Your task to perform on an android device: What's the weather going to be tomorrow? Image 0: 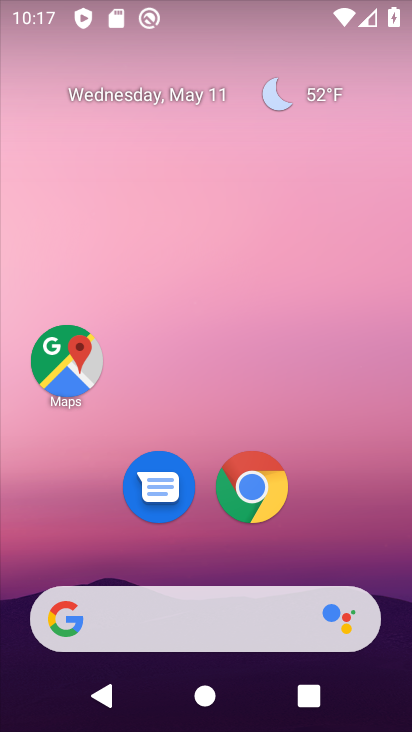
Step 0: click (304, 0)
Your task to perform on an android device: What's the weather going to be tomorrow? Image 1: 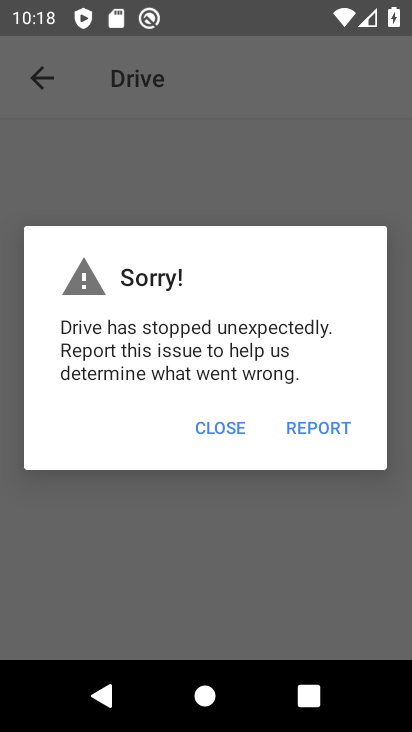
Step 1: press back button
Your task to perform on an android device: What's the weather going to be tomorrow? Image 2: 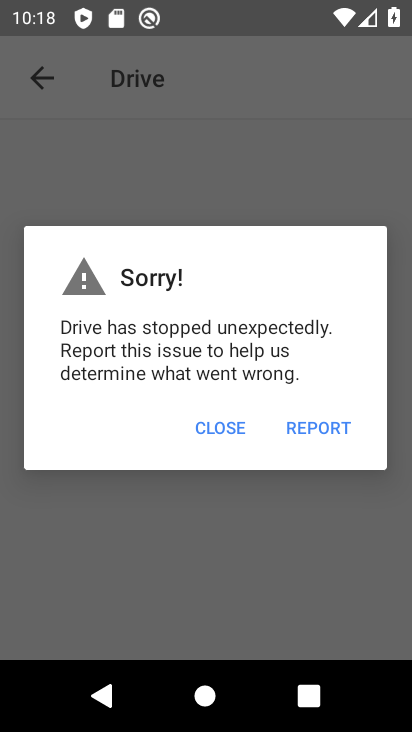
Step 2: press back button
Your task to perform on an android device: What's the weather going to be tomorrow? Image 3: 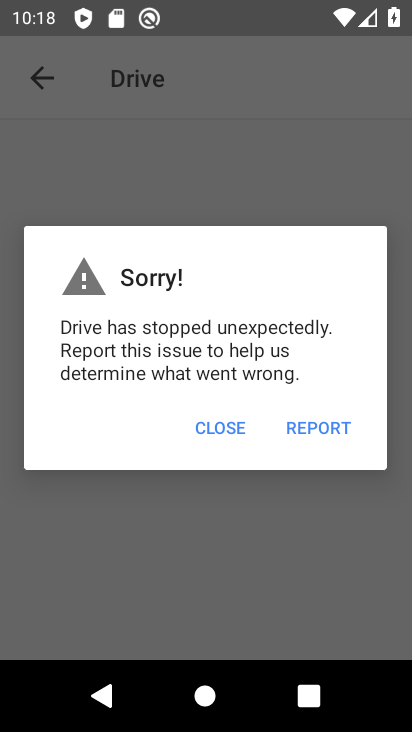
Step 3: press back button
Your task to perform on an android device: What's the weather going to be tomorrow? Image 4: 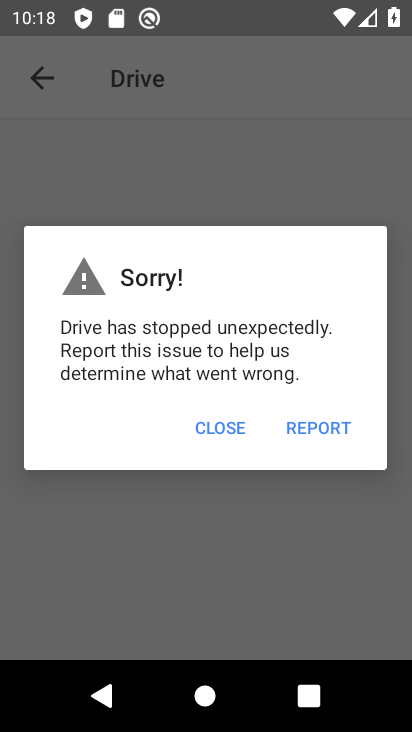
Step 4: press home button
Your task to perform on an android device: What's the weather going to be tomorrow? Image 5: 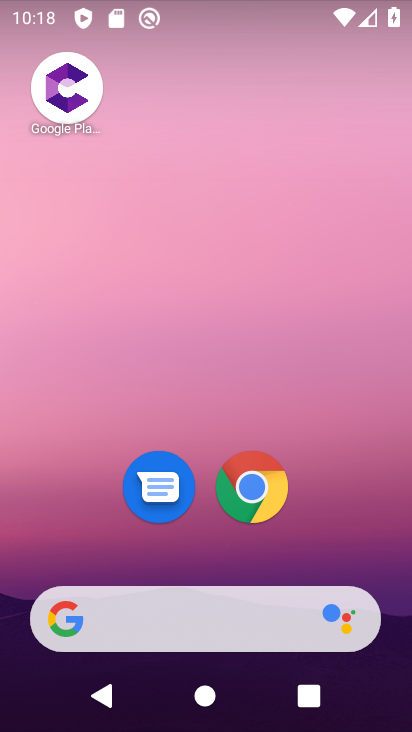
Step 5: drag from (341, 430) to (341, 4)
Your task to perform on an android device: What's the weather going to be tomorrow? Image 6: 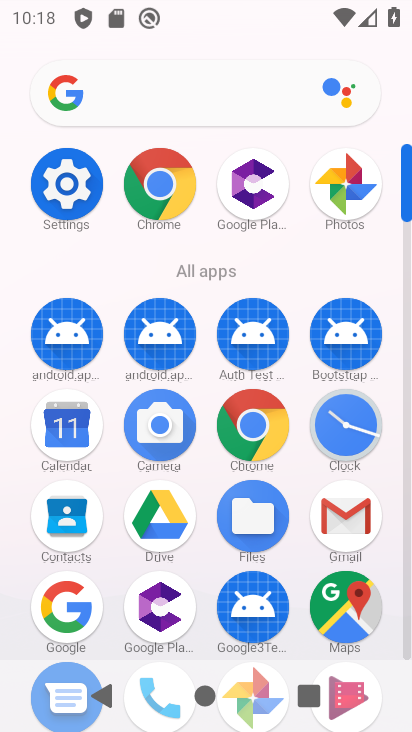
Step 6: drag from (0, 561) to (6, 297)
Your task to perform on an android device: What's the weather going to be tomorrow? Image 7: 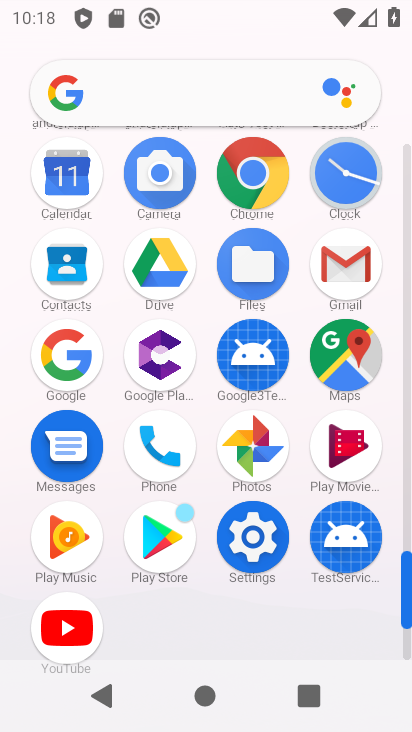
Step 7: click (250, 167)
Your task to perform on an android device: What's the weather going to be tomorrow? Image 8: 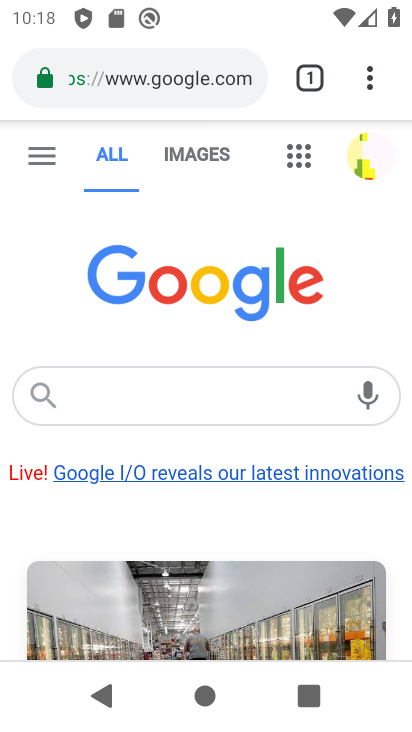
Step 8: click (133, 55)
Your task to perform on an android device: What's the weather going to be tomorrow? Image 9: 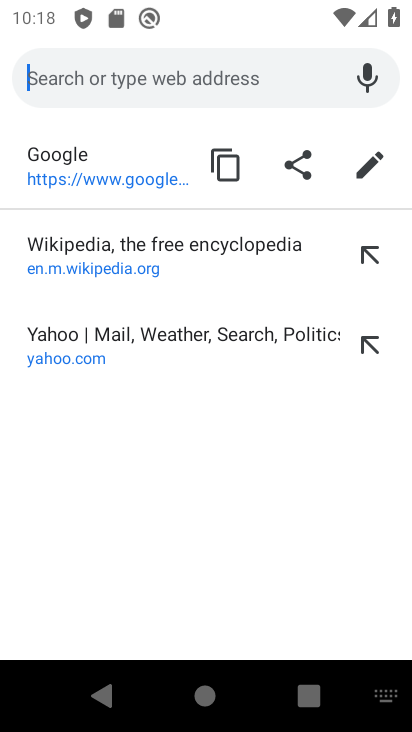
Step 9: type "What's the weather going to be tomorrow?"
Your task to perform on an android device: What's the weather going to be tomorrow? Image 10: 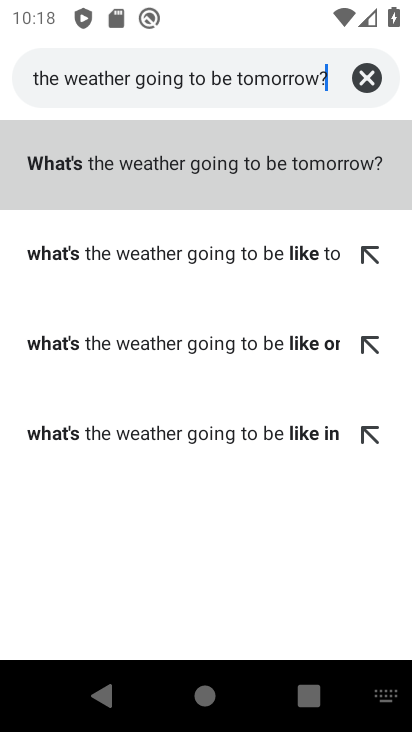
Step 10: type ""
Your task to perform on an android device: What's the weather going to be tomorrow? Image 11: 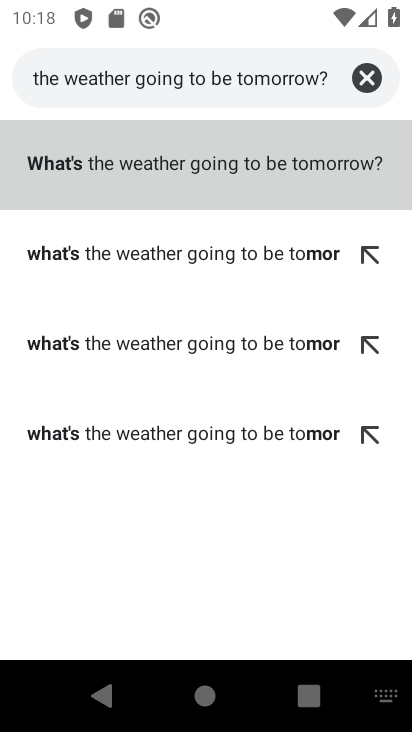
Step 11: click (248, 182)
Your task to perform on an android device: What's the weather going to be tomorrow? Image 12: 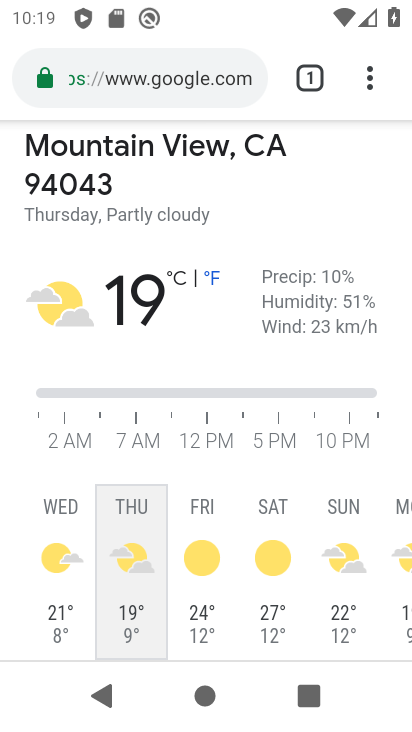
Step 12: task complete